Your task to perform on an android device: Go to accessibility settings Image 0: 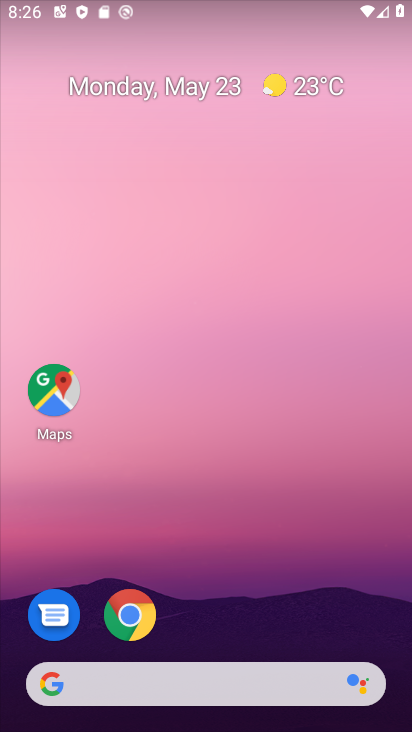
Step 0: drag from (264, 621) to (214, 188)
Your task to perform on an android device: Go to accessibility settings Image 1: 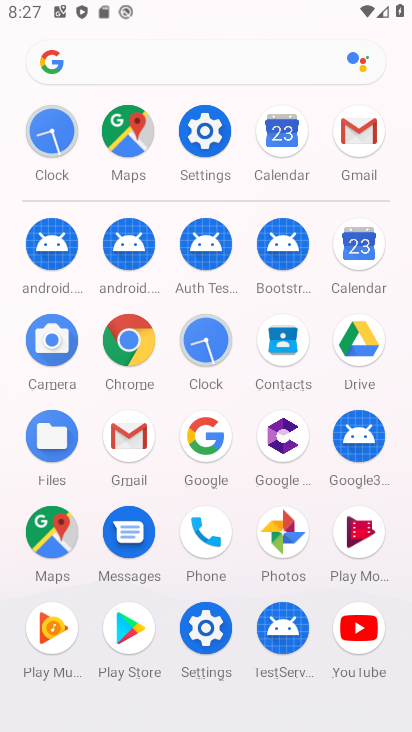
Step 1: click (205, 628)
Your task to perform on an android device: Go to accessibility settings Image 2: 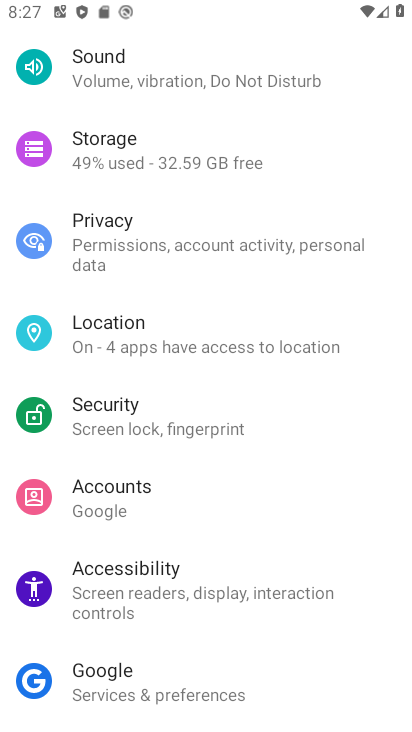
Step 2: click (152, 576)
Your task to perform on an android device: Go to accessibility settings Image 3: 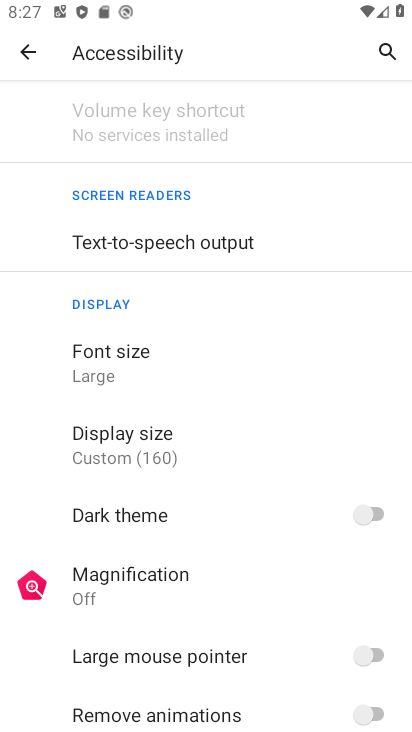
Step 3: task complete